Your task to perform on an android device: install app "Venmo" Image 0: 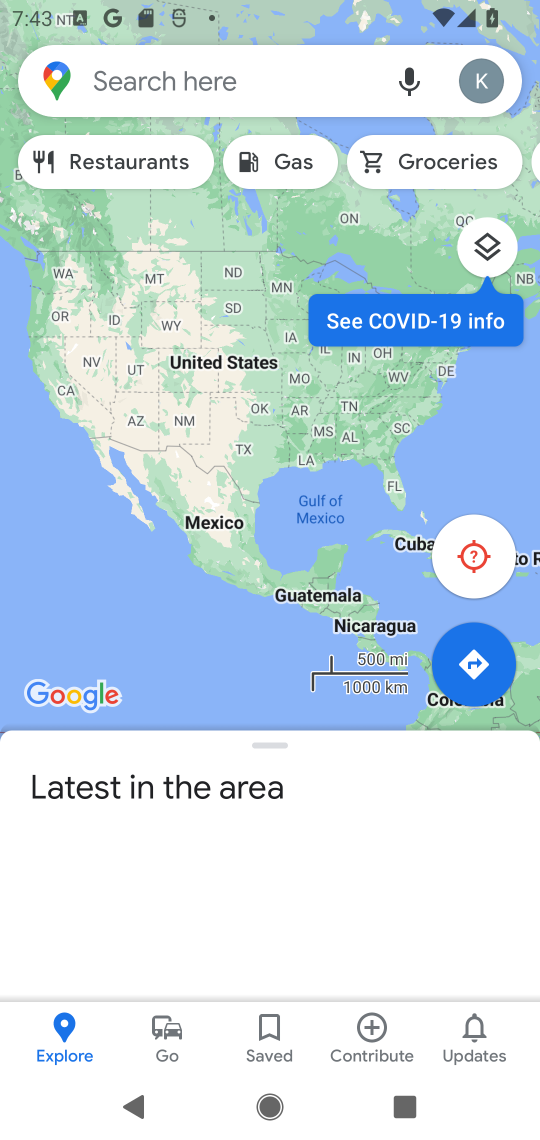
Step 0: press home button
Your task to perform on an android device: install app "Venmo" Image 1: 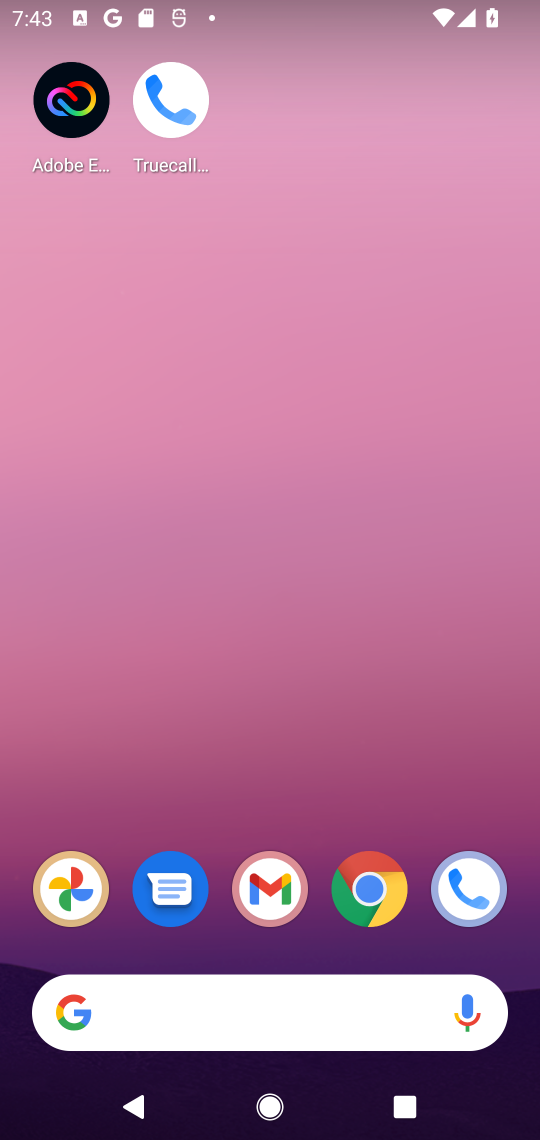
Step 1: press home button
Your task to perform on an android device: install app "Venmo" Image 2: 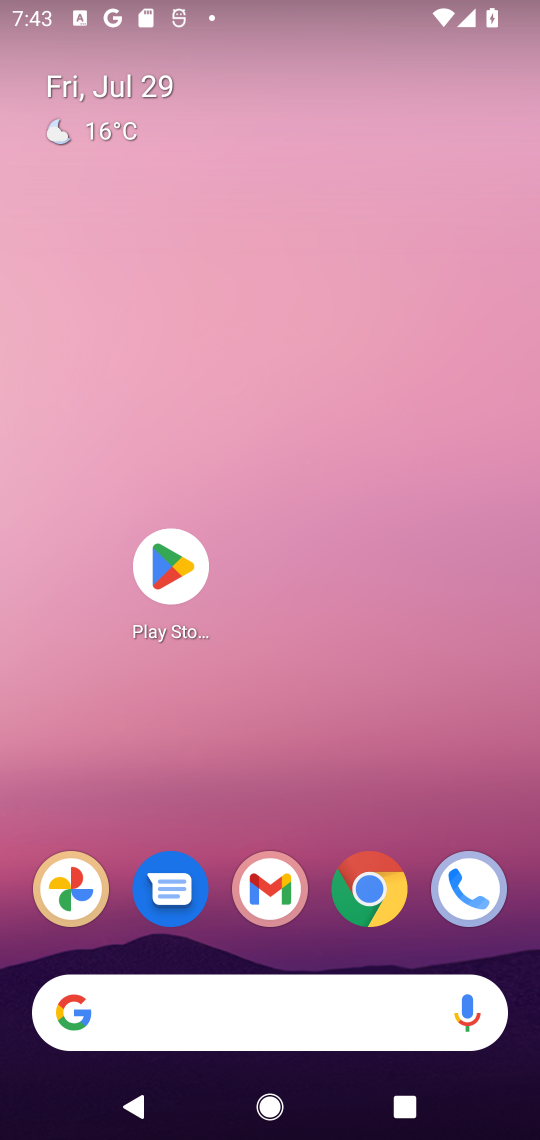
Step 2: click (164, 566)
Your task to perform on an android device: install app "Venmo" Image 3: 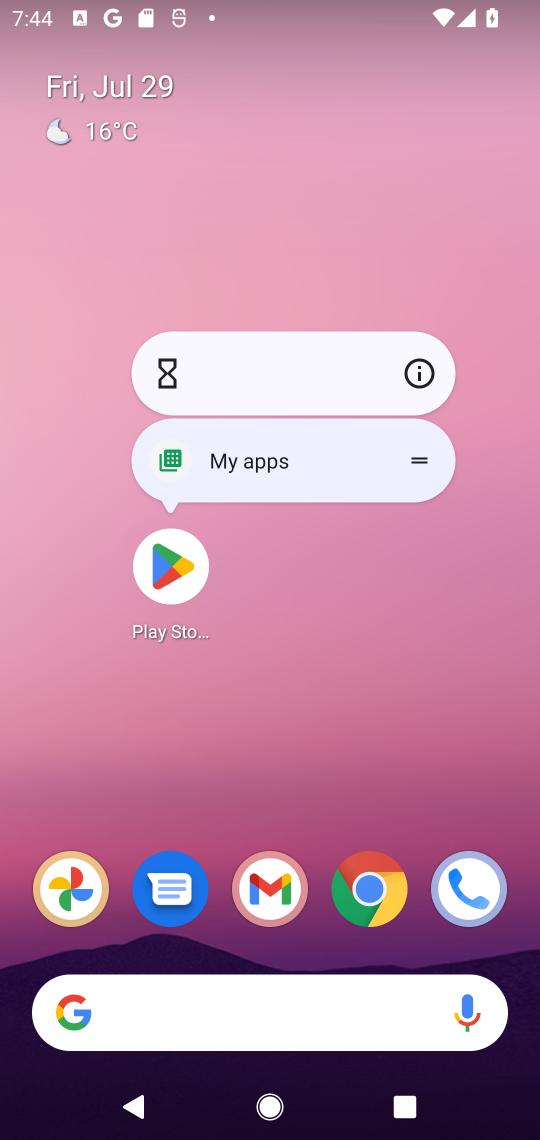
Step 3: click (164, 572)
Your task to perform on an android device: install app "Venmo" Image 4: 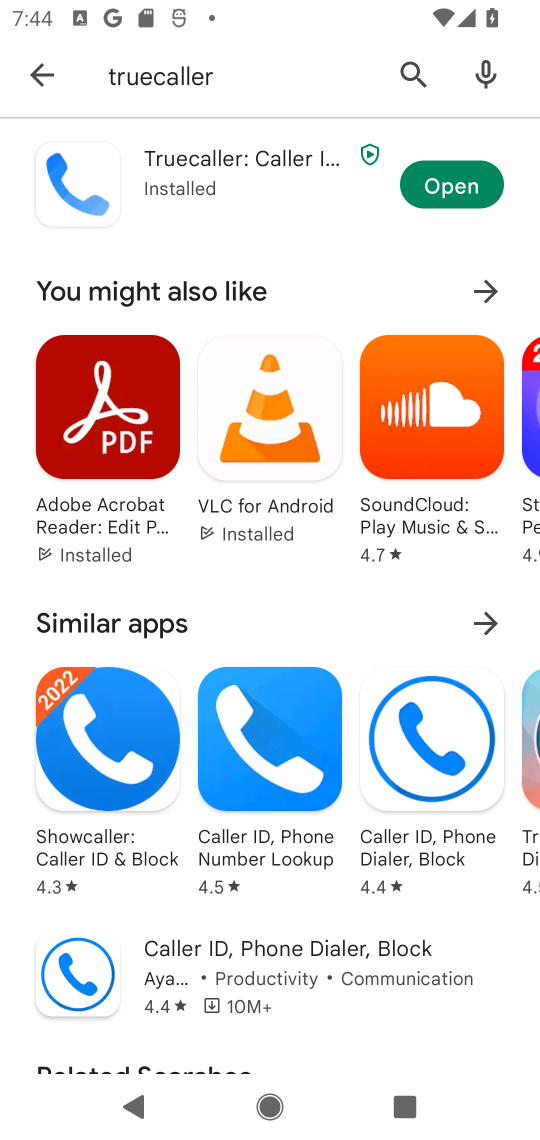
Step 4: click (404, 66)
Your task to perform on an android device: install app "Venmo" Image 5: 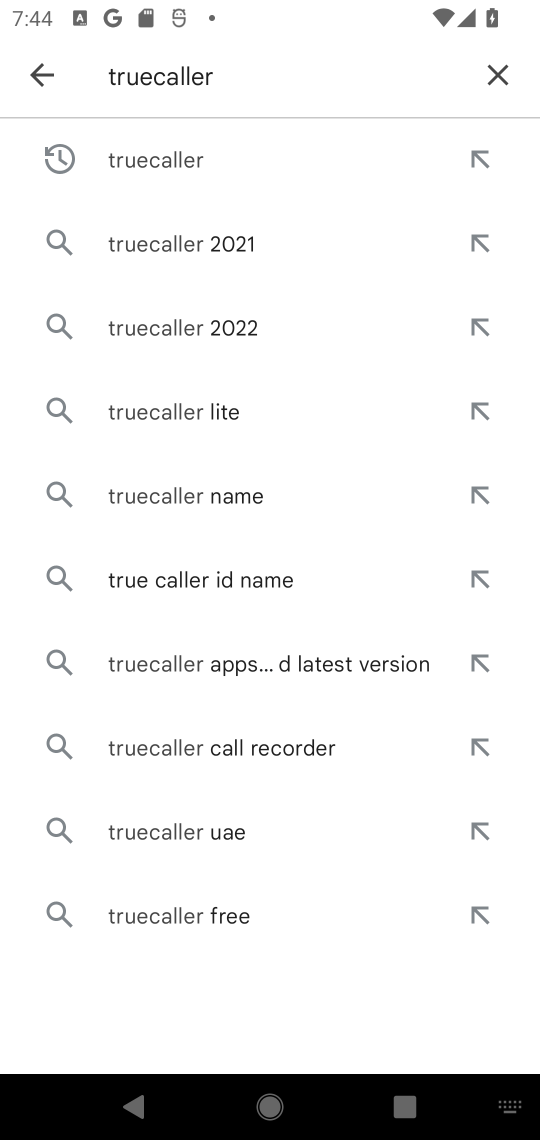
Step 5: click (495, 63)
Your task to perform on an android device: install app "Venmo" Image 6: 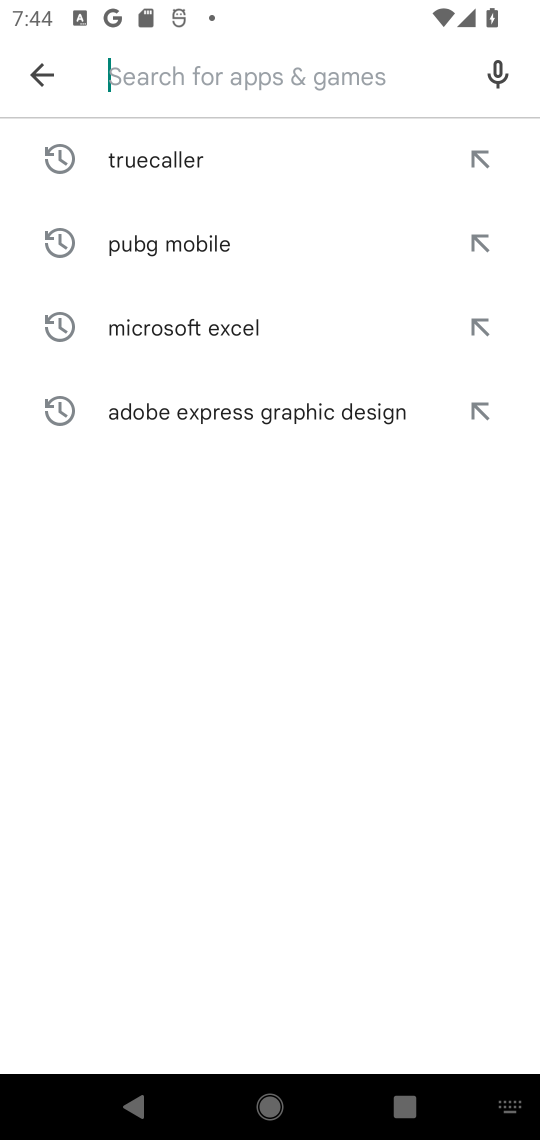
Step 6: type "Venmo"
Your task to perform on an android device: install app "Venmo" Image 7: 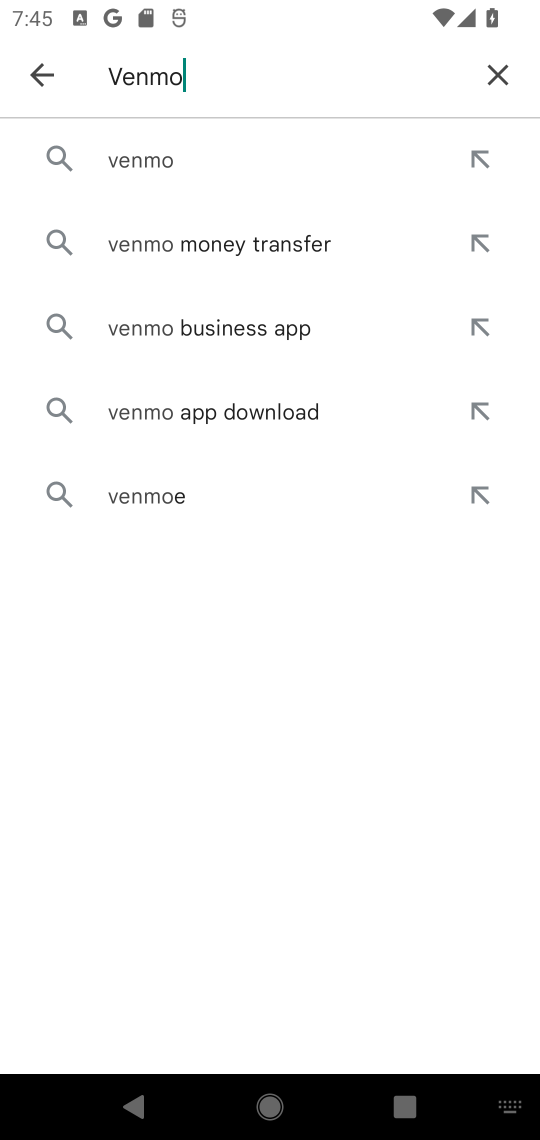
Step 7: click (133, 164)
Your task to perform on an android device: install app "Venmo" Image 8: 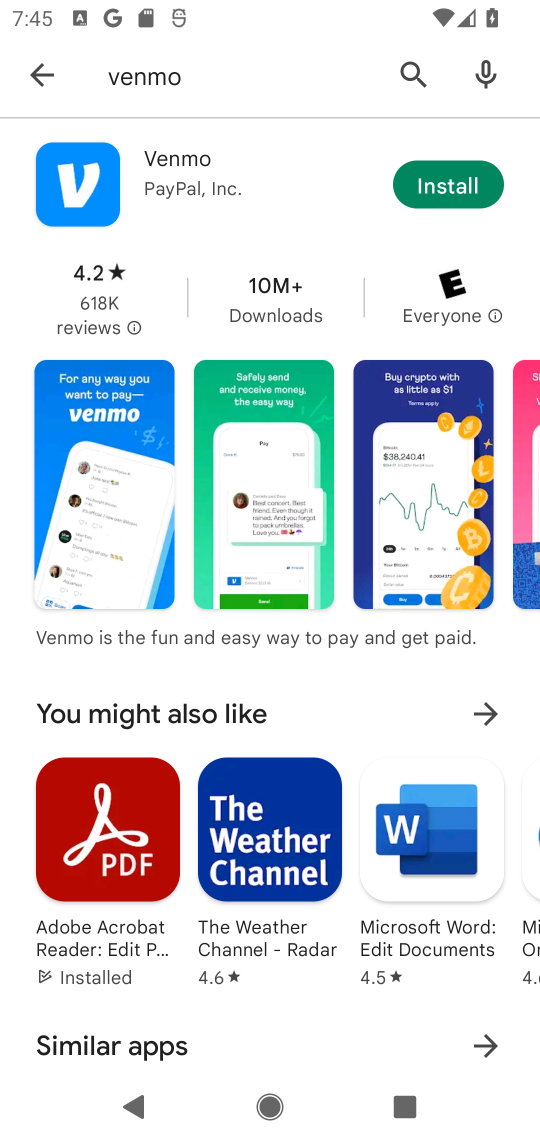
Step 8: click (439, 175)
Your task to perform on an android device: install app "Venmo" Image 9: 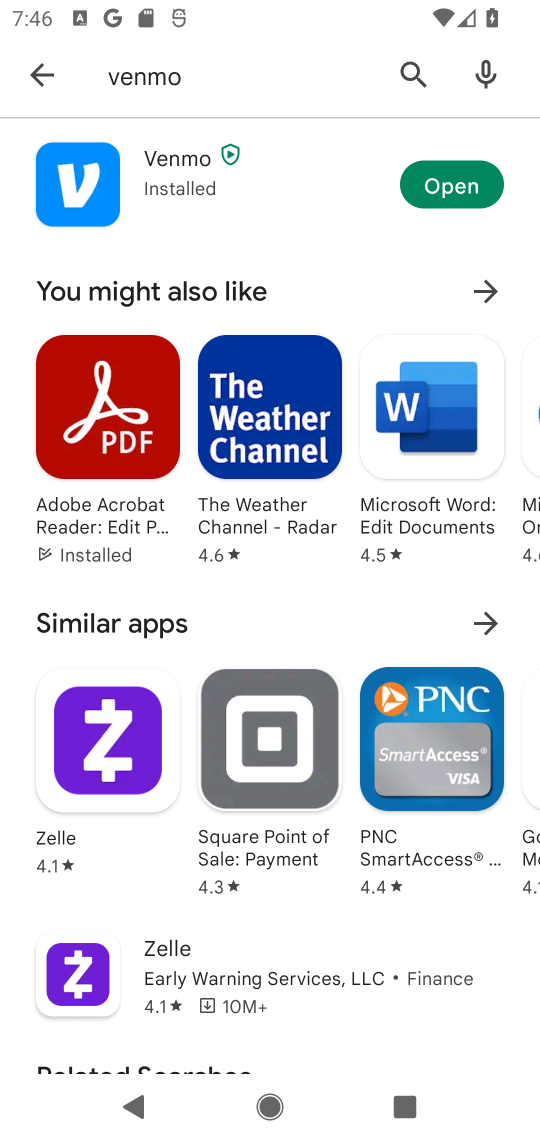
Step 9: task complete